Your task to perform on an android device: turn off translation in the chrome app Image 0: 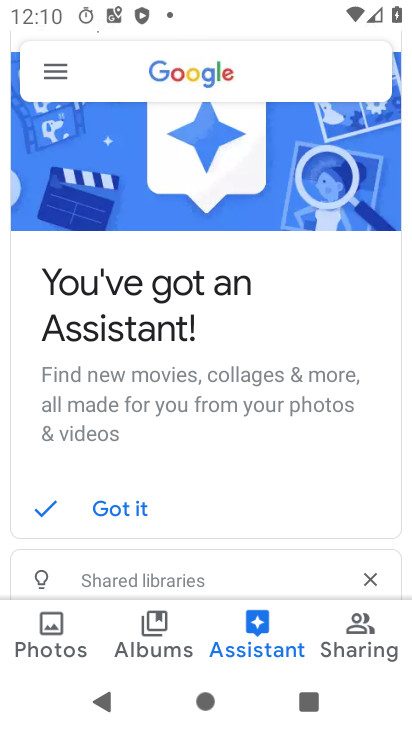
Step 0: press home button
Your task to perform on an android device: turn off translation in the chrome app Image 1: 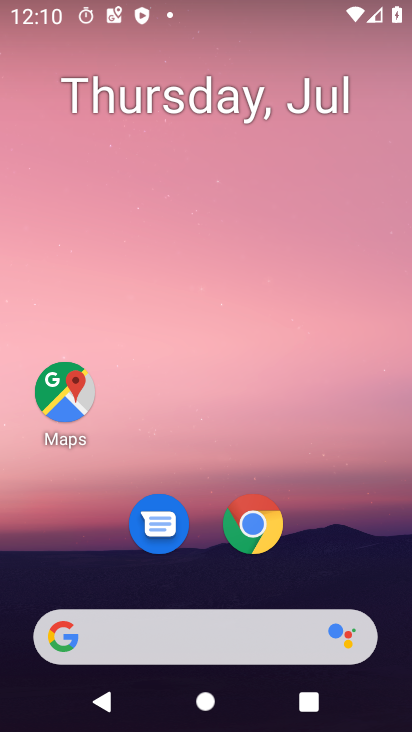
Step 1: click (249, 527)
Your task to perform on an android device: turn off translation in the chrome app Image 2: 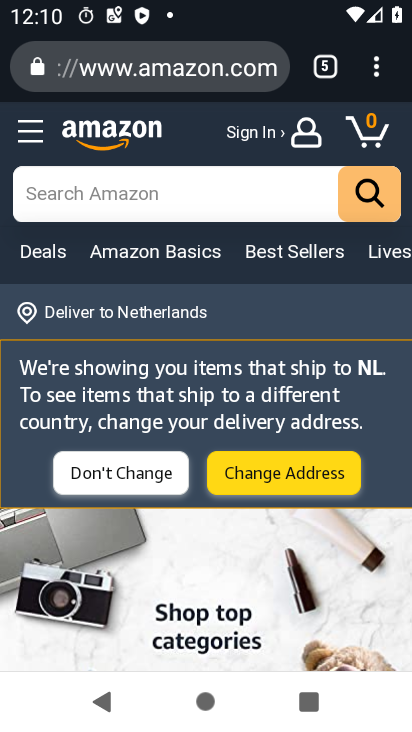
Step 2: drag from (378, 71) to (208, 531)
Your task to perform on an android device: turn off translation in the chrome app Image 3: 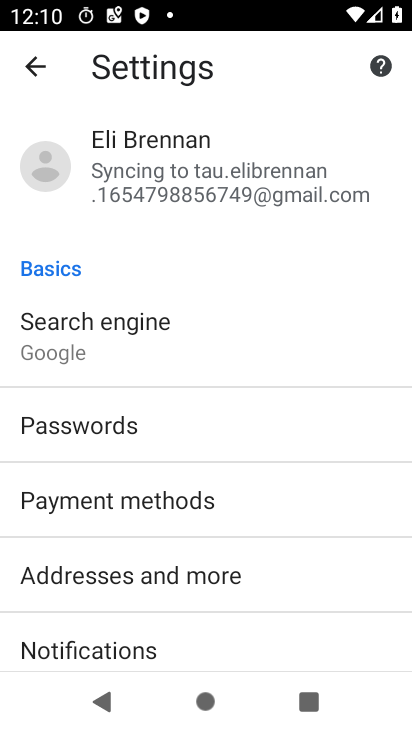
Step 3: drag from (171, 631) to (267, 273)
Your task to perform on an android device: turn off translation in the chrome app Image 4: 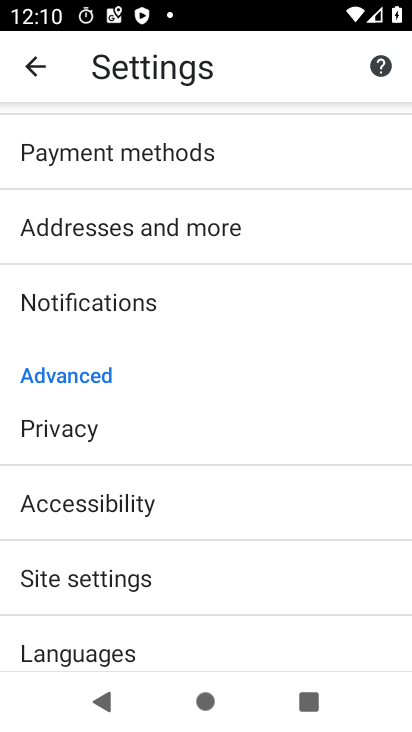
Step 4: click (125, 645)
Your task to perform on an android device: turn off translation in the chrome app Image 5: 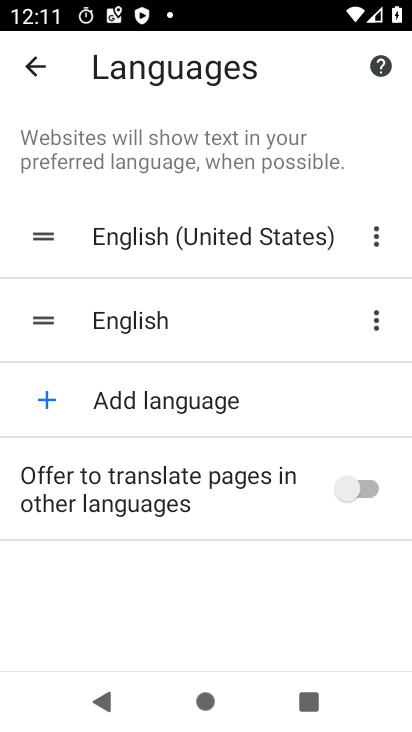
Step 5: task complete